Your task to perform on an android device: toggle location history Image 0: 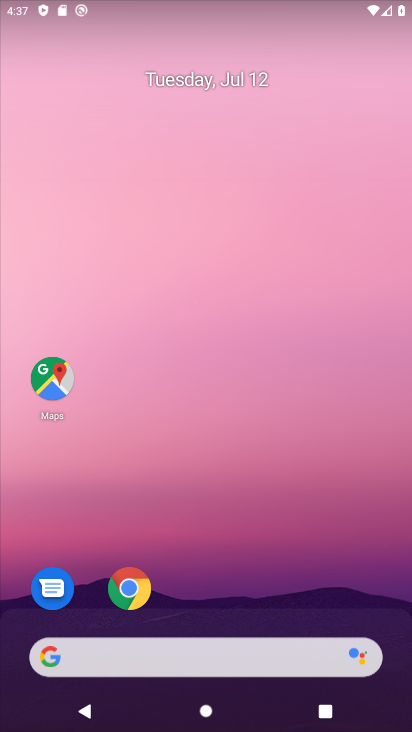
Step 0: drag from (228, 602) to (228, 93)
Your task to perform on an android device: toggle location history Image 1: 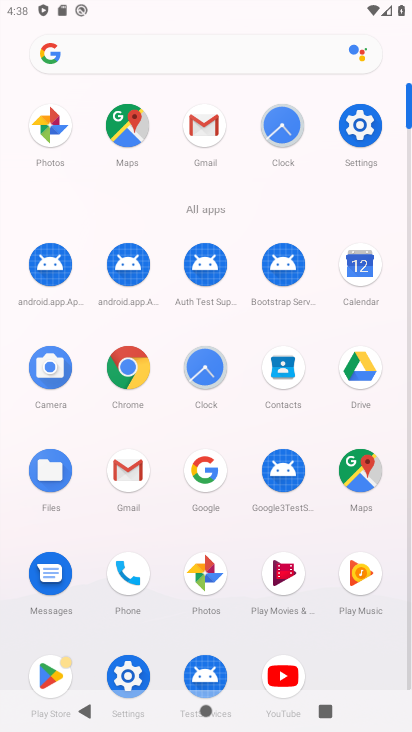
Step 1: click (362, 475)
Your task to perform on an android device: toggle location history Image 2: 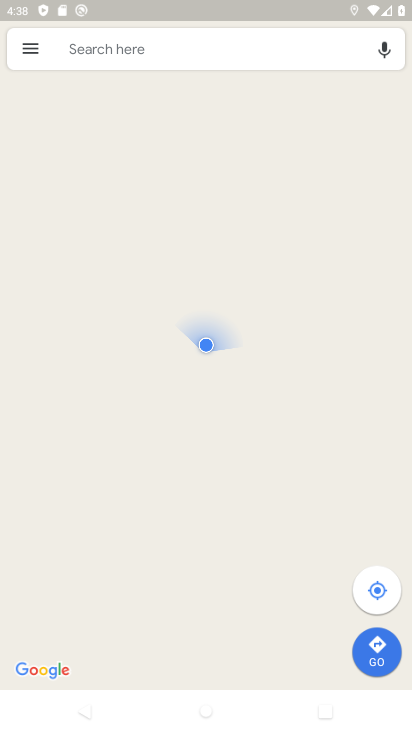
Step 2: click (85, 43)
Your task to perform on an android device: toggle location history Image 3: 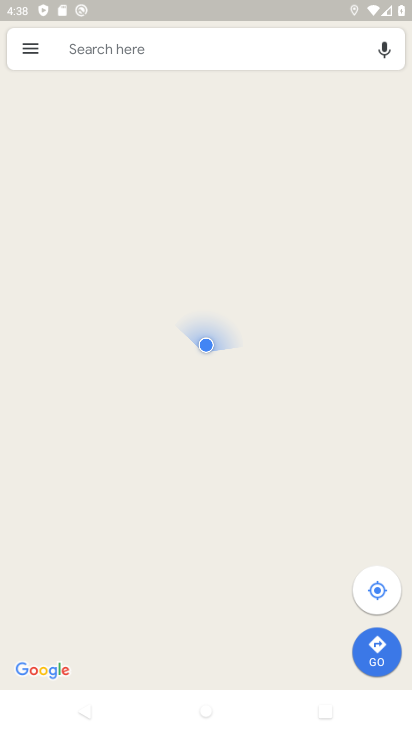
Step 3: click (85, 43)
Your task to perform on an android device: toggle location history Image 4: 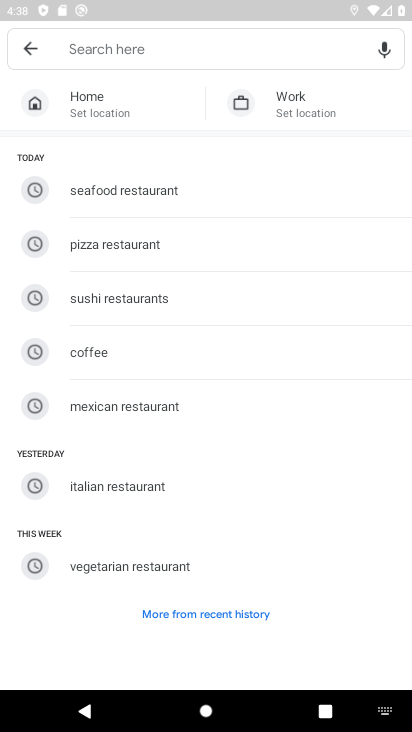
Step 4: click (27, 48)
Your task to perform on an android device: toggle location history Image 5: 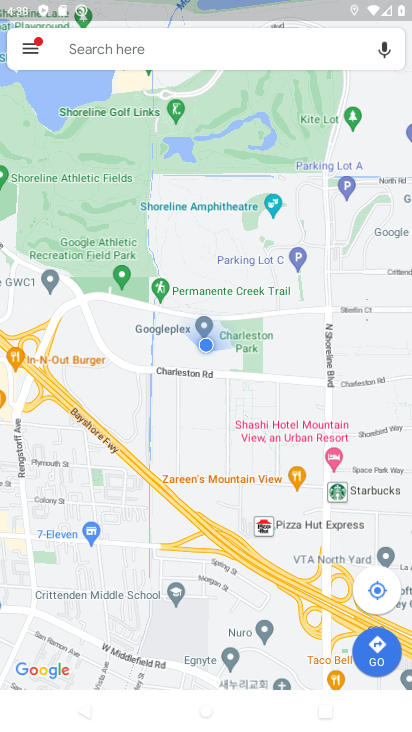
Step 5: click (27, 48)
Your task to perform on an android device: toggle location history Image 6: 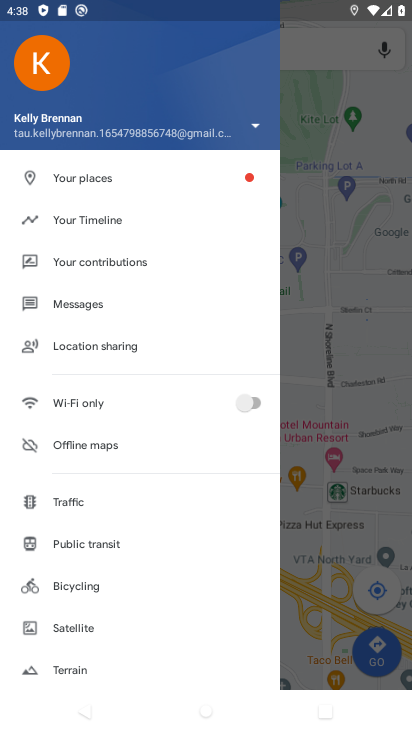
Step 6: click (64, 215)
Your task to perform on an android device: toggle location history Image 7: 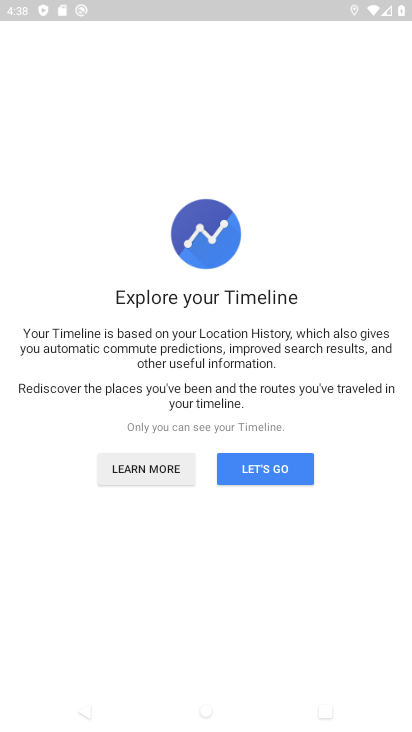
Step 7: click (264, 464)
Your task to perform on an android device: toggle location history Image 8: 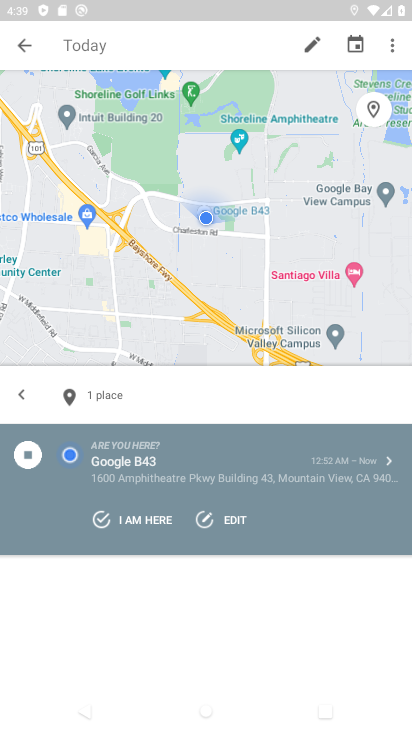
Step 8: click (390, 34)
Your task to perform on an android device: toggle location history Image 9: 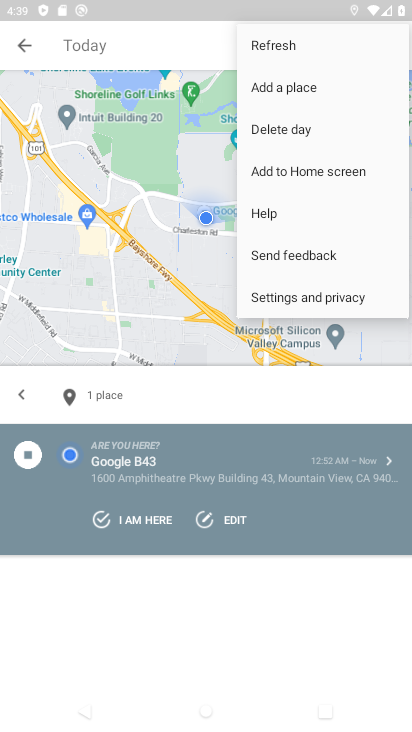
Step 9: click (321, 293)
Your task to perform on an android device: toggle location history Image 10: 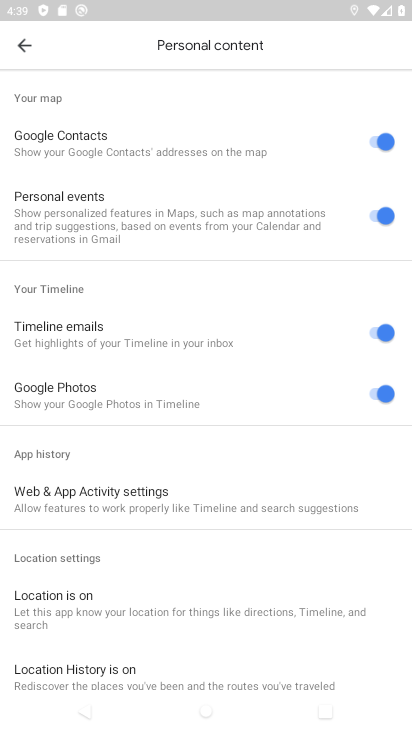
Step 10: click (106, 672)
Your task to perform on an android device: toggle location history Image 11: 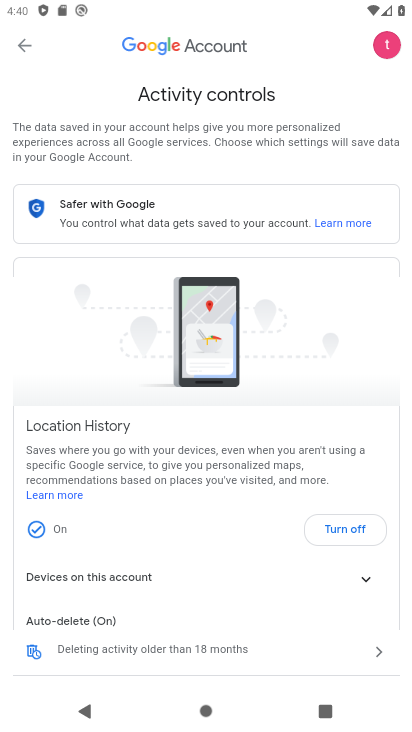
Step 11: click (358, 525)
Your task to perform on an android device: toggle location history Image 12: 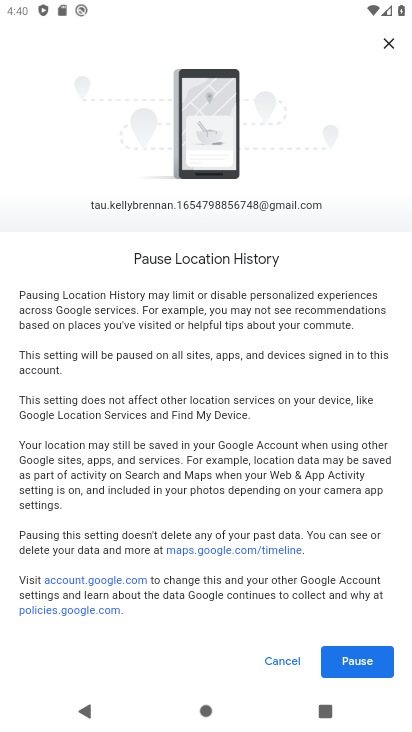
Step 12: click (374, 654)
Your task to perform on an android device: toggle location history Image 13: 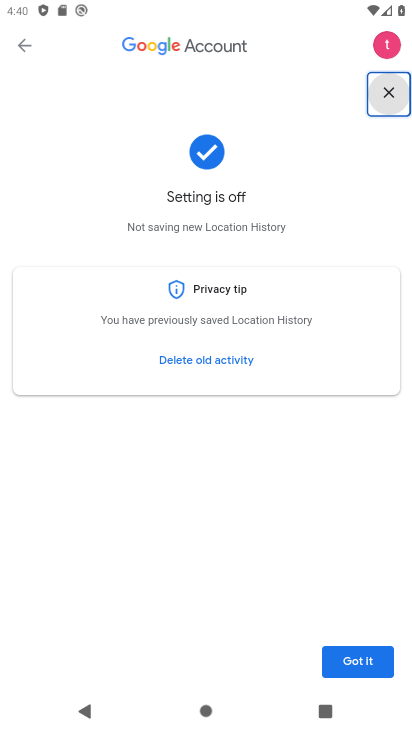
Step 13: click (374, 654)
Your task to perform on an android device: toggle location history Image 14: 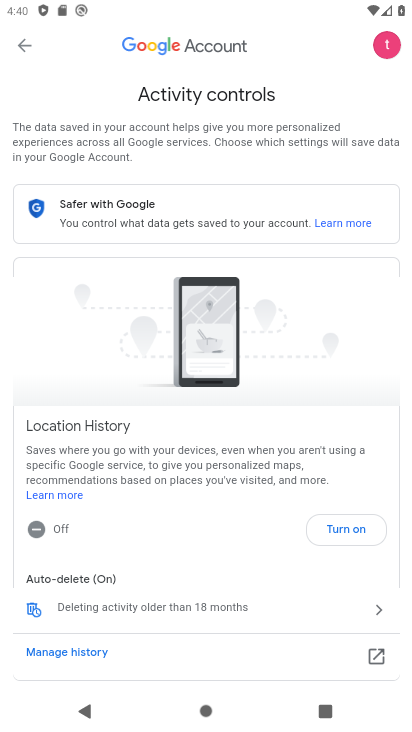
Step 14: task complete